Your task to perform on an android device: add a contact Image 0: 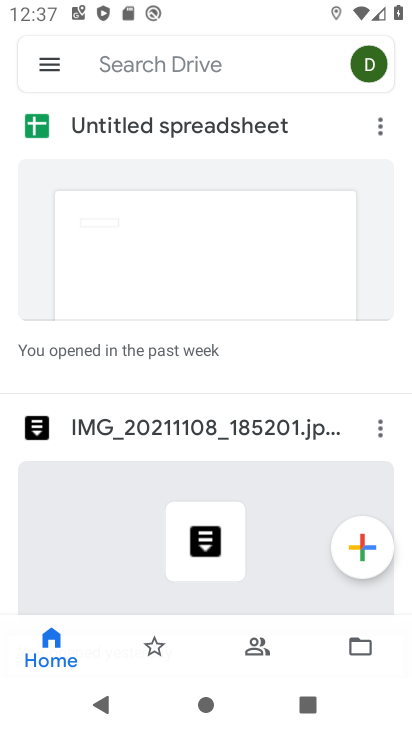
Step 0: press home button
Your task to perform on an android device: add a contact Image 1: 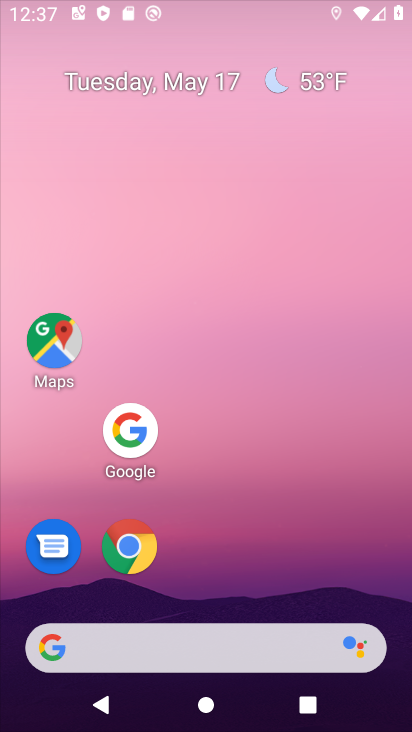
Step 1: drag from (260, 543) to (274, 90)
Your task to perform on an android device: add a contact Image 2: 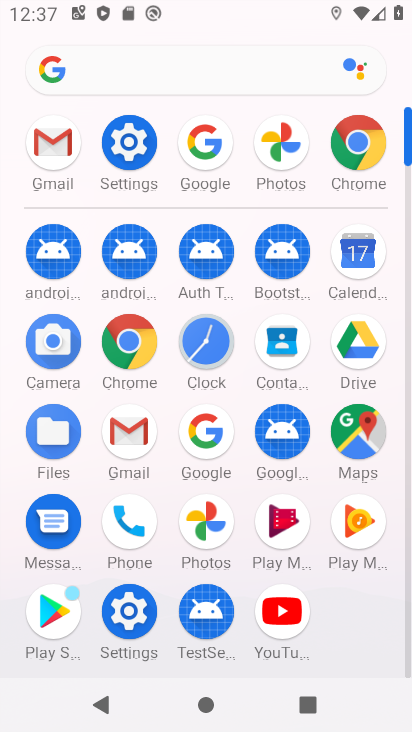
Step 2: click (274, 349)
Your task to perform on an android device: add a contact Image 3: 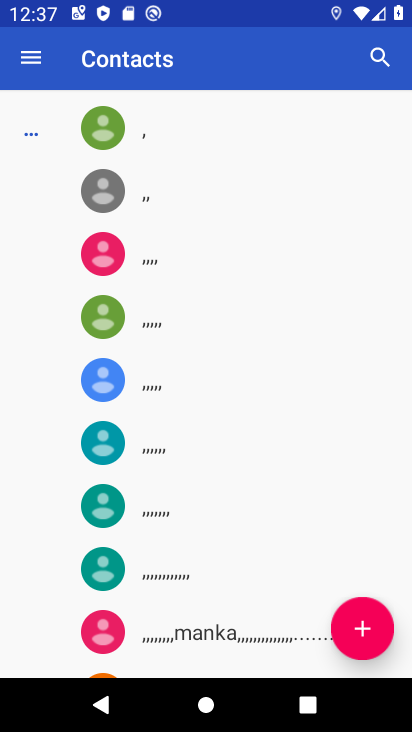
Step 3: click (370, 633)
Your task to perform on an android device: add a contact Image 4: 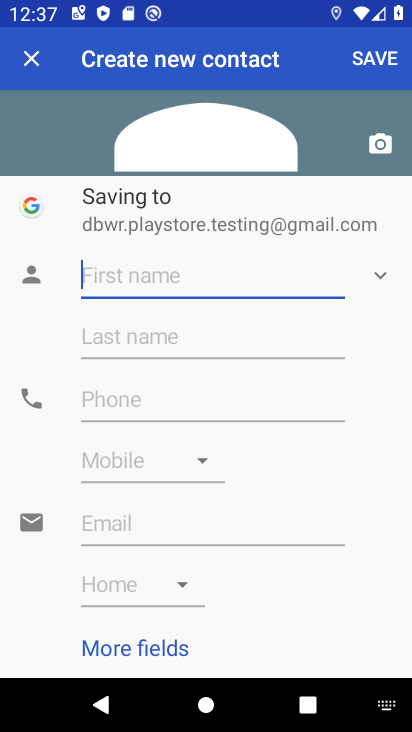
Step 4: type "jyufgh"
Your task to perform on an android device: add a contact Image 5: 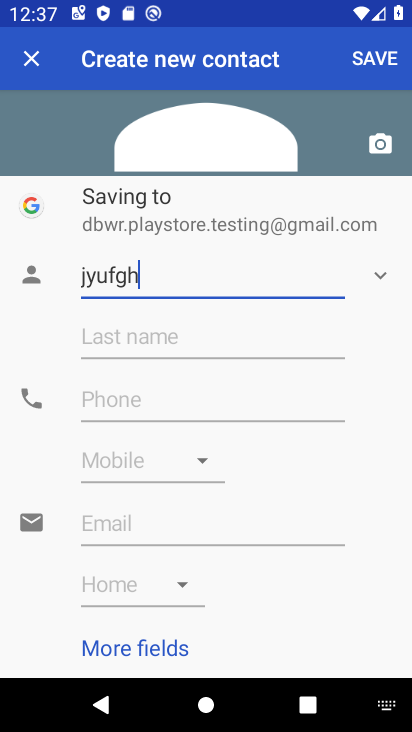
Step 5: click (354, 50)
Your task to perform on an android device: add a contact Image 6: 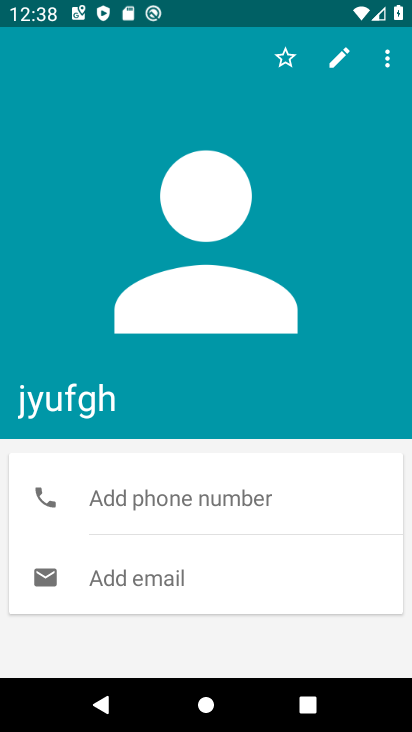
Step 6: task complete